Your task to perform on an android device: toggle show notifications on the lock screen Image 0: 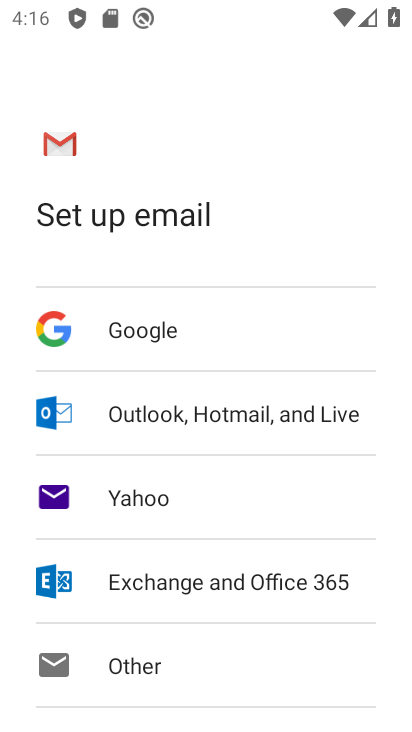
Step 0: press back button
Your task to perform on an android device: toggle show notifications on the lock screen Image 1: 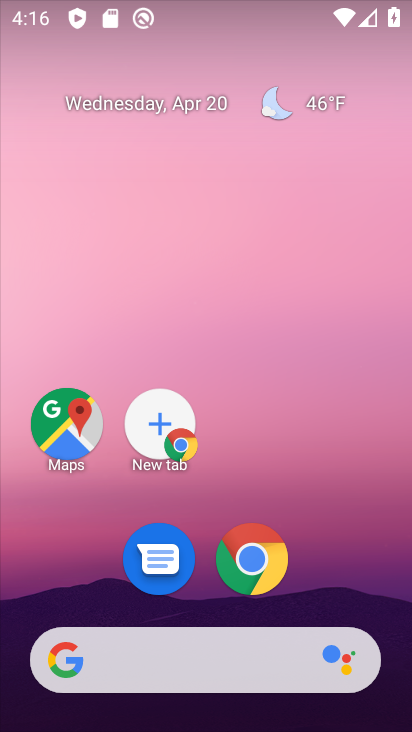
Step 1: drag from (342, 554) to (316, 133)
Your task to perform on an android device: toggle show notifications on the lock screen Image 2: 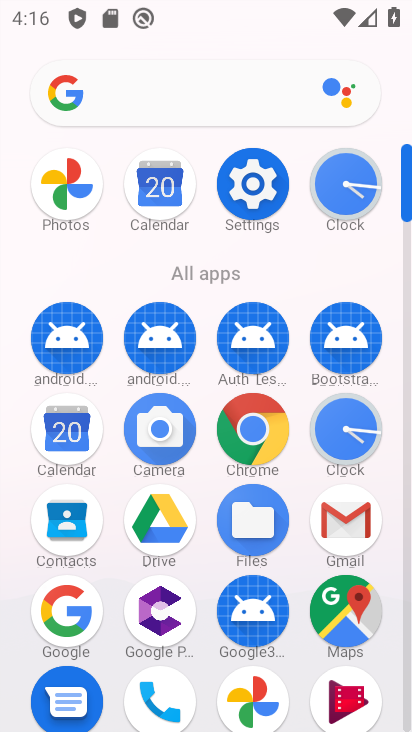
Step 2: click (257, 212)
Your task to perform on an android device: toggle show notifications on the lock screen Image 3: 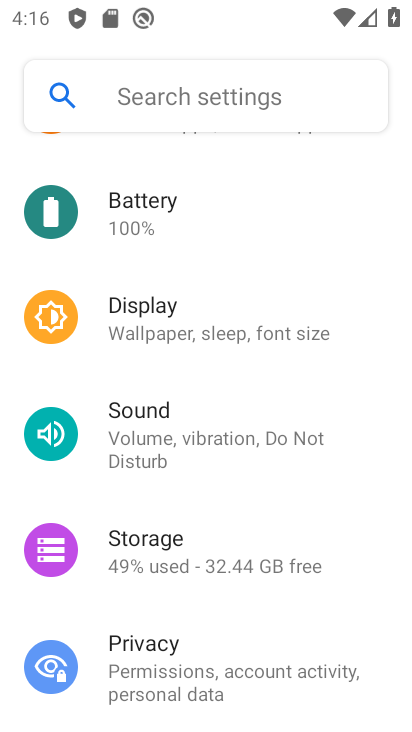
Step 3: drag from (273, 603) to (273, 229)
Your task to perform on an android device: toggle show notifications on the lock screen Image 4: 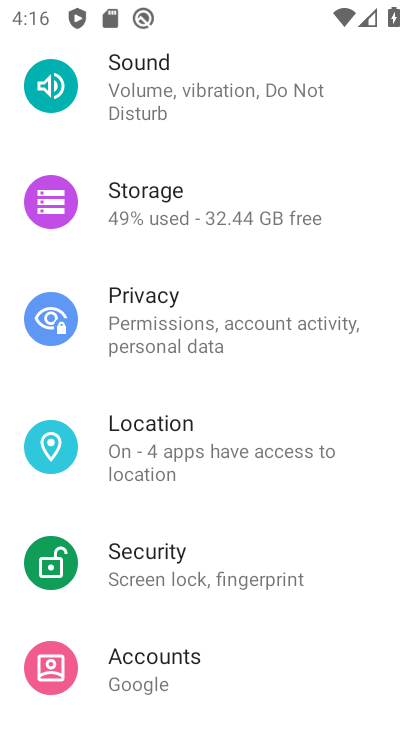
Step 4: drag from (168, 612) to (205, 585)
Your task to perform on an android device: toggle show notifications on the lock screen Image 5: 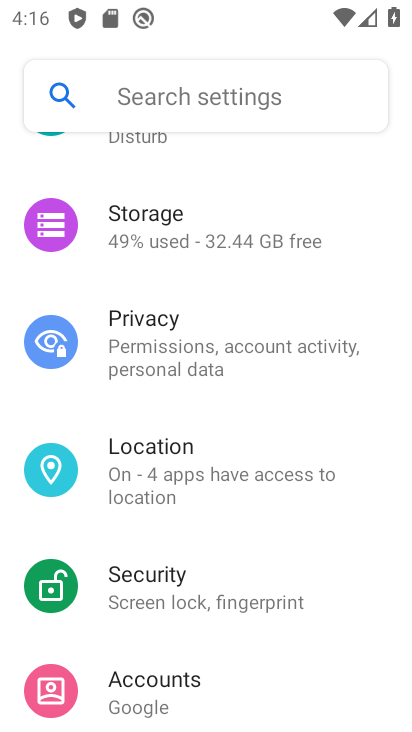
Step 5: drag from (247, 206) to (351, 560)
Your task to perform on an android device: toggle show notifications on the lock screen Image 6: 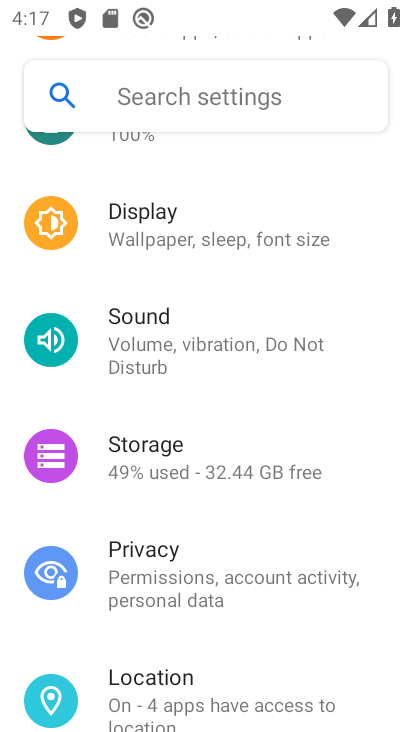
Step 6: drag from (268, 182) to (355, 532)
Your task to perform on an android device: toggle show notifications on the lock screen Image 7: 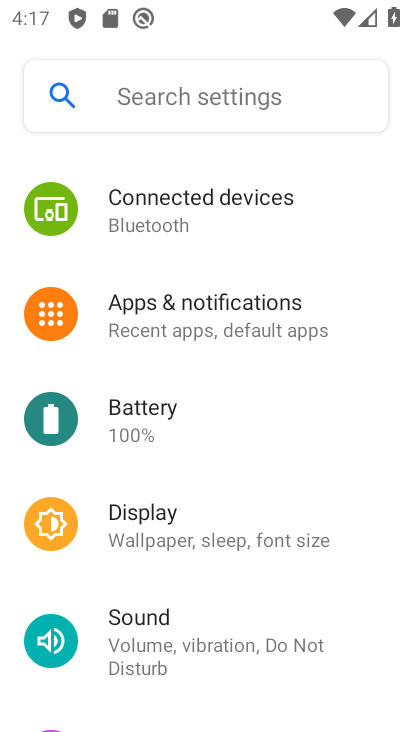
Step 7: click (191, 333)
Your task to perform on an android device: toggle show notifications on the lock screen Image 8: 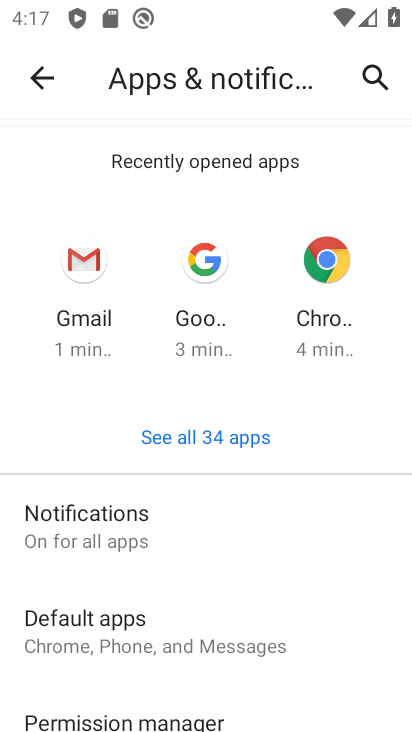
Step 8: drag from (152, 589) to (200, 203)
Your task to perform on an android device: toggle show notifications on the lock screen Image 9: 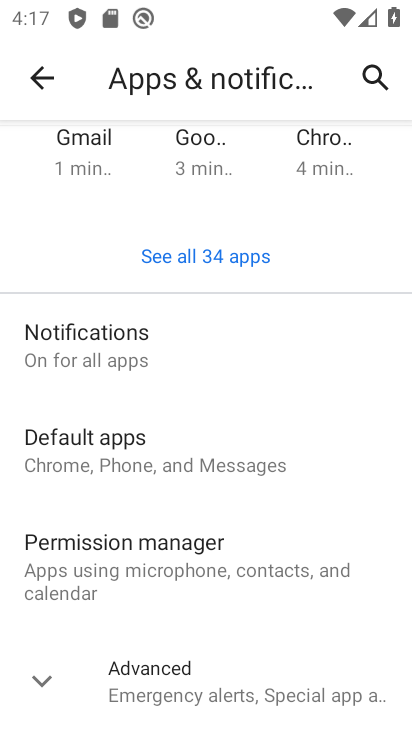
Step 9: click (225, 656)
Your task to perform on an android device: toggle show notifications on the lock screen Image 10: 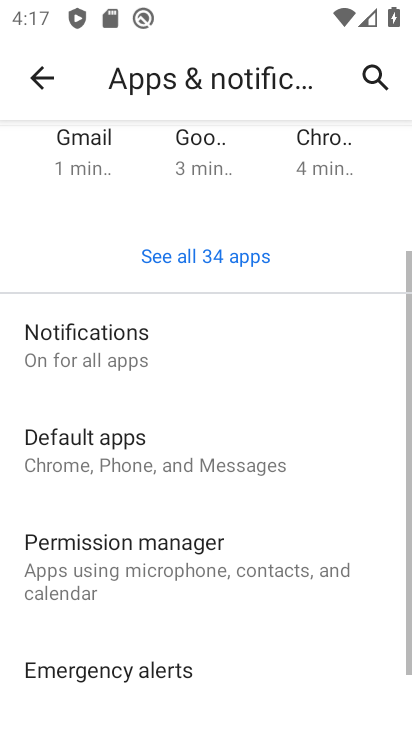
Step 10: click (181, 334)
Your task to perform on an android device: toggle show notifications on the lock screen Image 11: 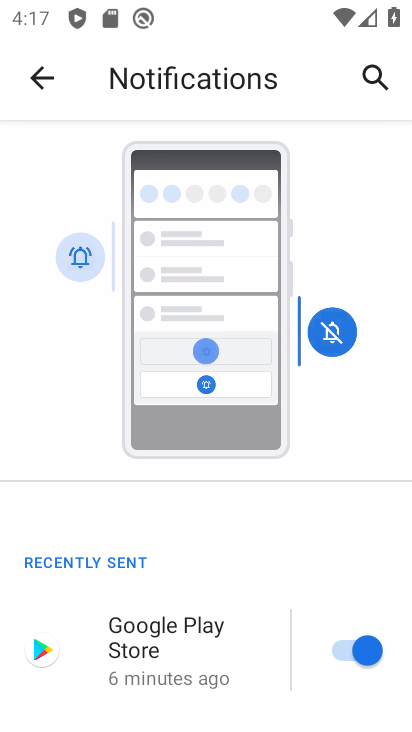
Step 11: drag from (199, 544) to (217, 190)
Your task to perform on an android device: toggle show notifications on the lock screen Image 12: 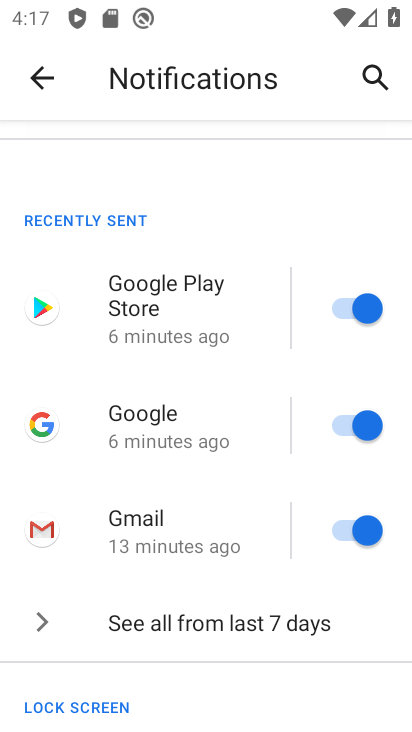
Step 12: drag from (198, 603) to (216, 298)
Your task to perform on an android device: toggle show notifications on the lock screen Image 13: 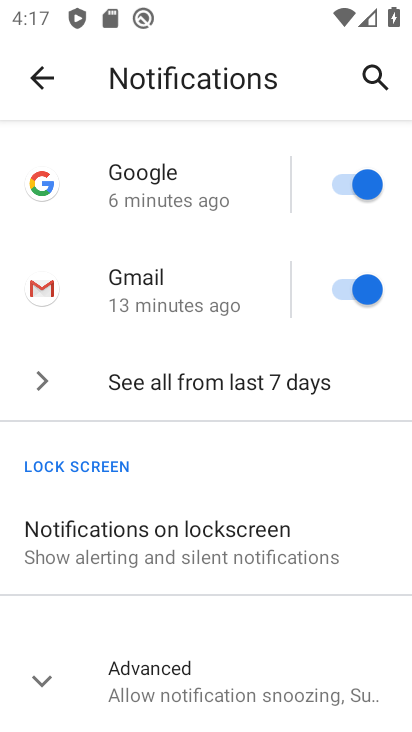
Step 13: click (218, 559)
Your task to perform on an android device: toggle show notifications on the lock screen Image 14: 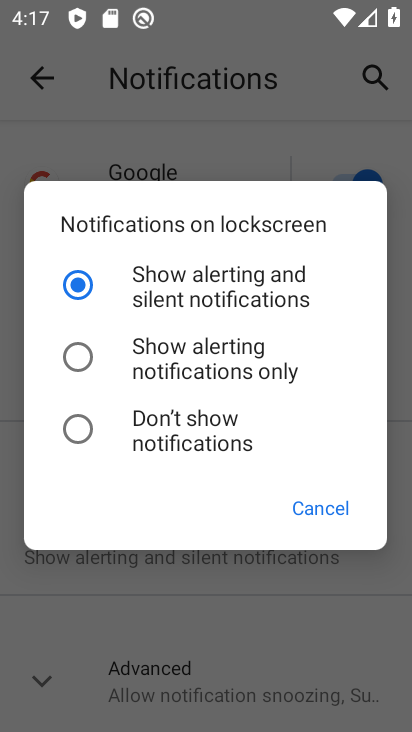
Step 14: click (226, 375)
Your task to perform on an android device: toggle show notifications on the lock screen Image 15: 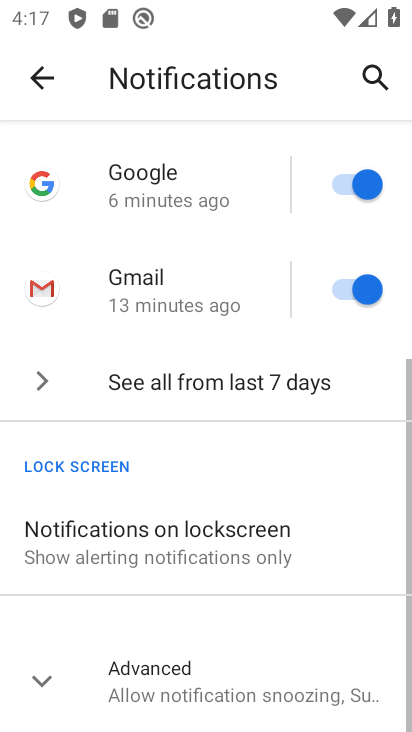
Step 15: task complete